Your task to perform on an android device: Go to network settings Image 0: 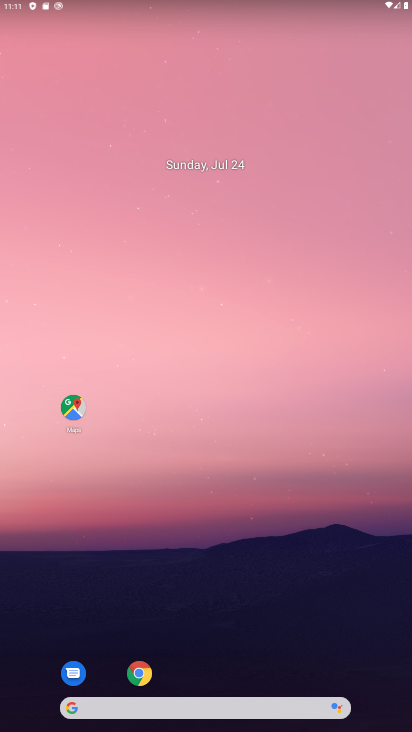
Step 0: press home button
Your task to perform on an android device: Go to network settings Image 1: 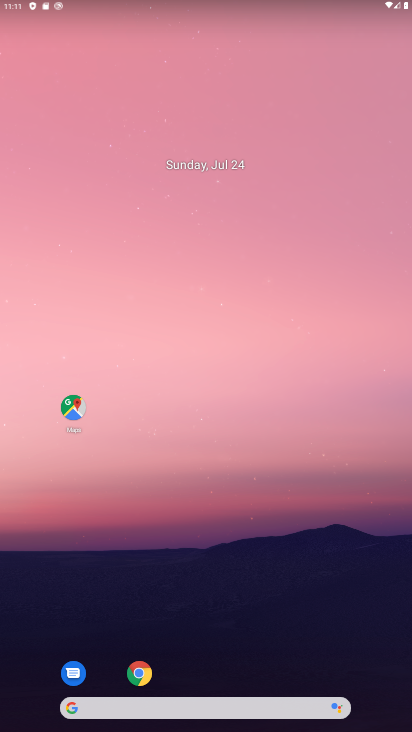
Step 1: click (284, 199)
Your task to perform on an android device: Go to network settings Image 2: 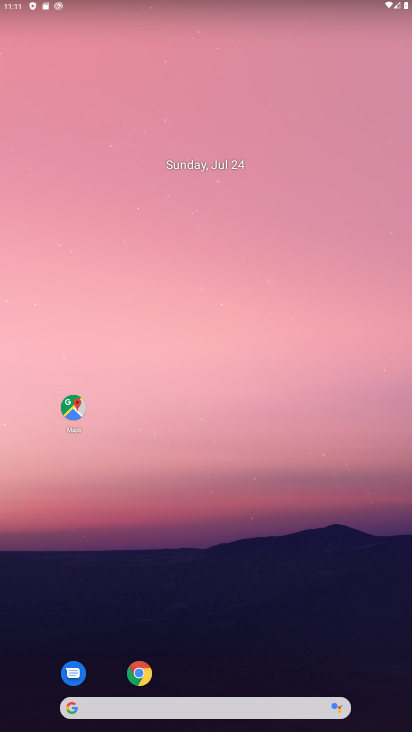
Step 2: click (174, 30)
Your task to perform on an android device: Go to network settings Image 3: 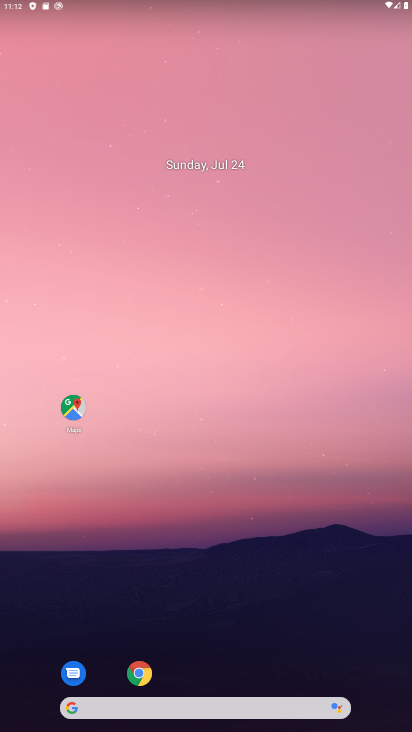
Step 3: click (226, 90)
Your task to perform on an android device: Go to network settings Image 4: 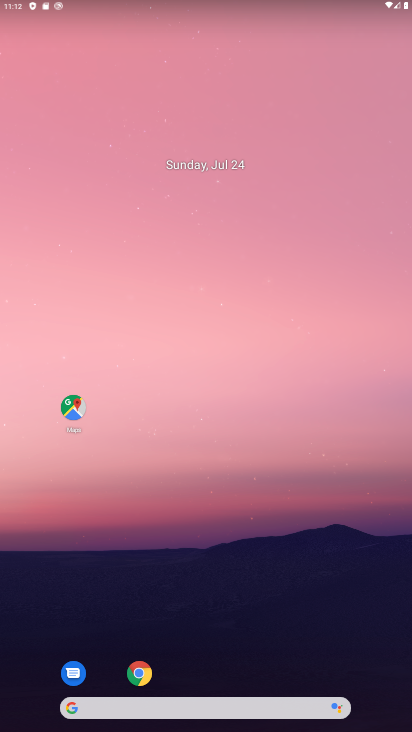
Step 4: press home button
Your task to perform on an android device: Go to network settings Image 5: 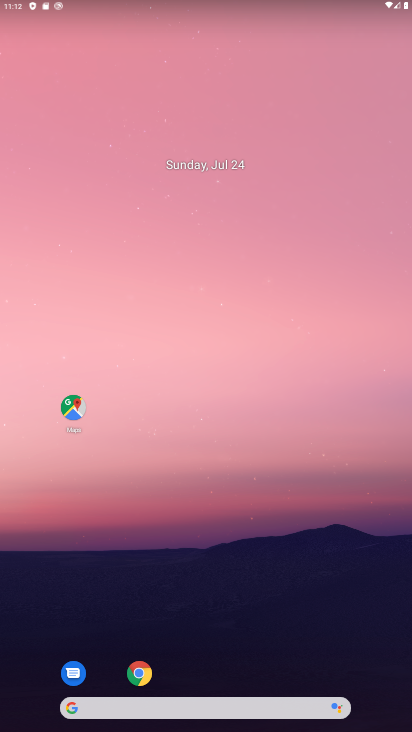
Step 5: drag from (402, 569) to (306, 9)
Your task to perform on an android device: Go to network settings Image 6: 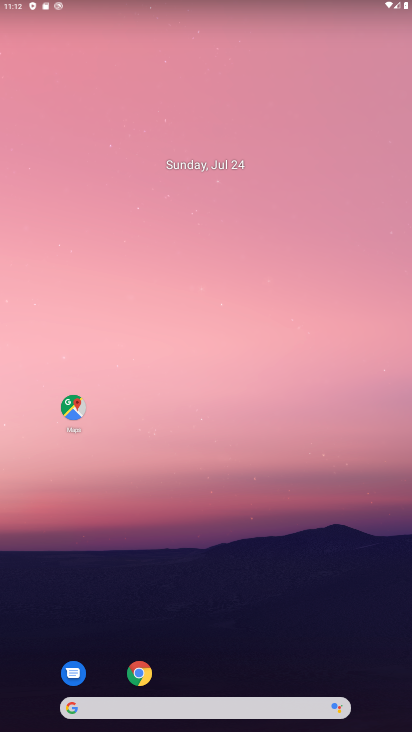
Step 6: drag from (165, 335) to (218, 5)
Your task to perform on an android device: Go to network settings Image 7: 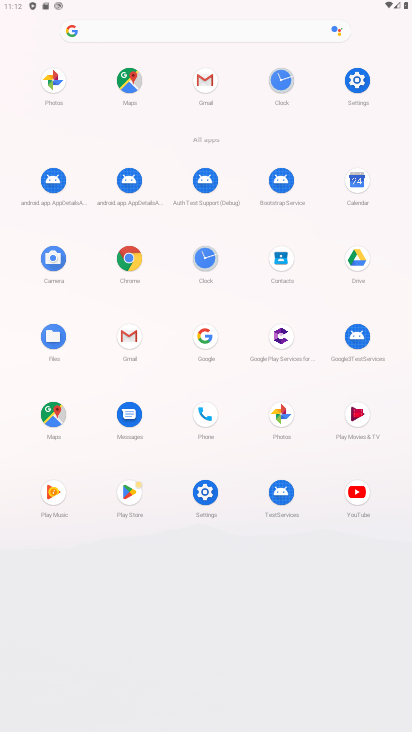
Step 7: click (359, 78)
Your task to perform on an android device: Go to network settings Image 8: 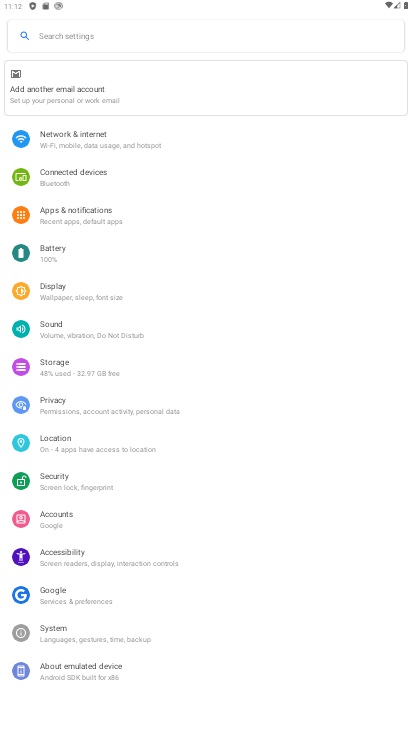
Step 8: click (67, 133)
Your task to perform on an android device: Go to network settings Image 9: 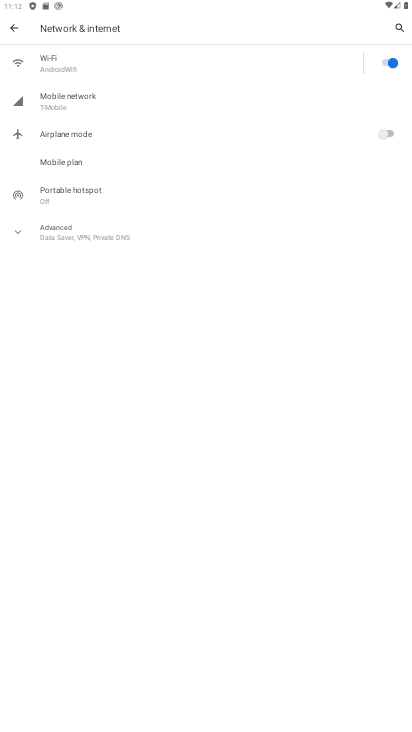
Step 9: task complete